Your task to perform on an android device: see creations saved in the google photos Image 0: 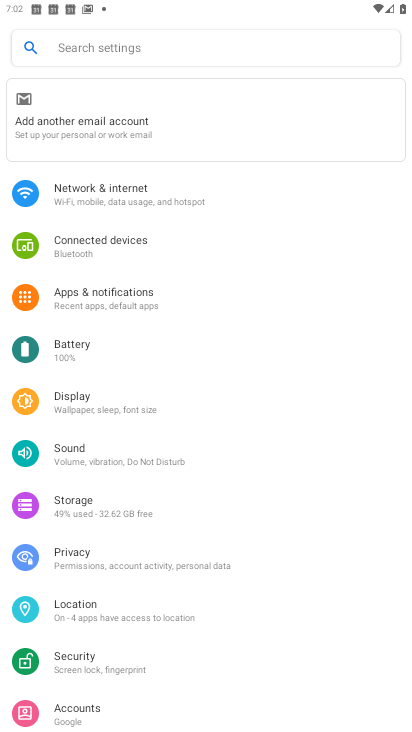
Step 0: press home button
Your task to perform on an android device: see creations saved in the google photos Image 1: 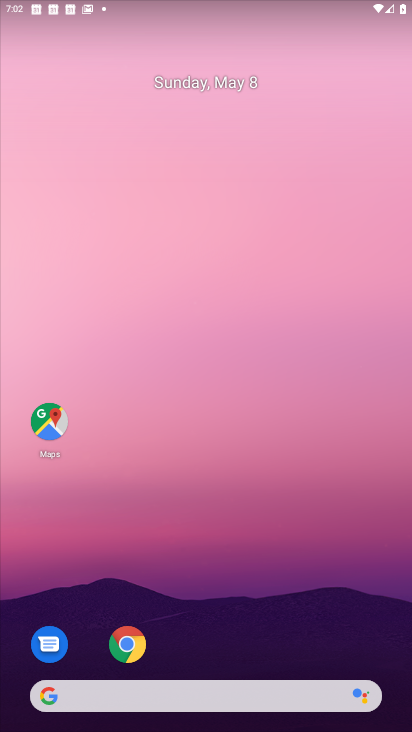
Step 1: drag from (304, 632) to (282, 184)
Your task to perform on an android device: see creations saved in the google photos Image 2: 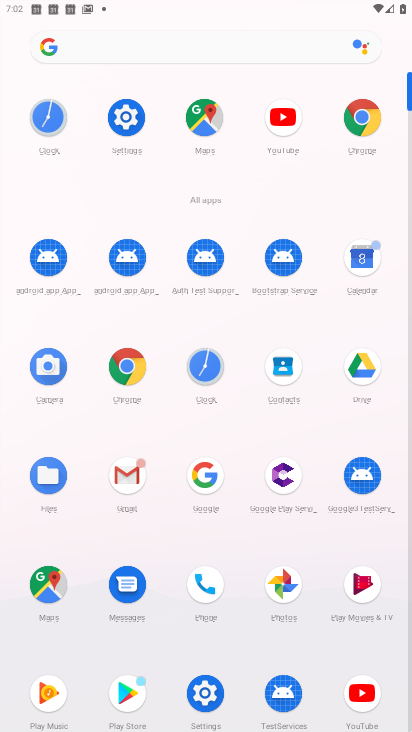
Step 2: click (277, 582)
Your task to perform on an android device: see creations saved in the google photos Image 3: 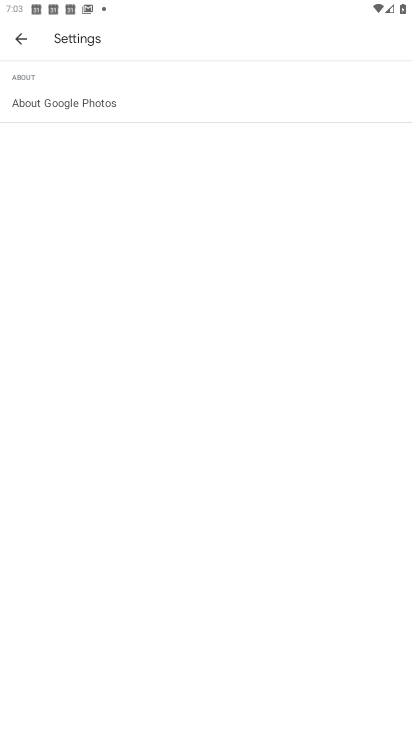
Step 3: press back button
Your task to perform on an android device: see creations saved in the google photos Image 4: 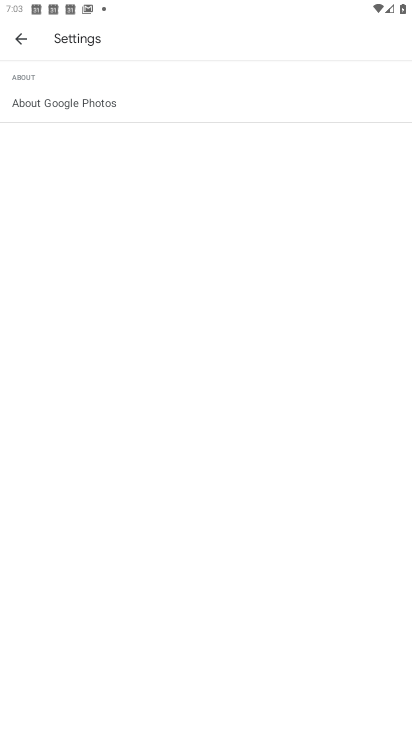
Step 4: press back button
Your task to perform on an android device: see creations saved in the google photos Image 5: 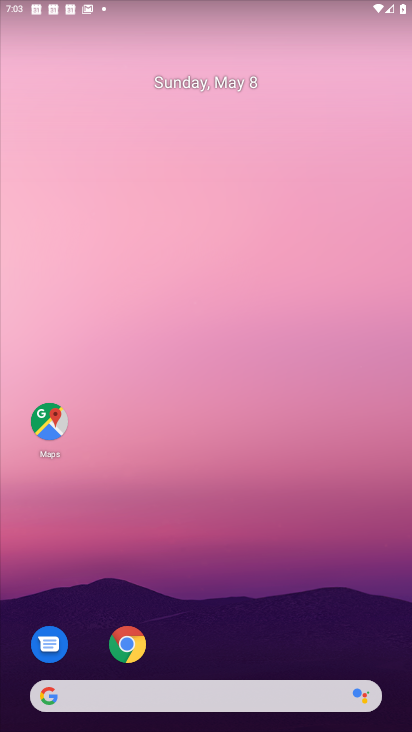
Step 5: drag from (288, 497) to (222, 18)
Your task to perform on an android device: see creations saved in the google photos Image 6: 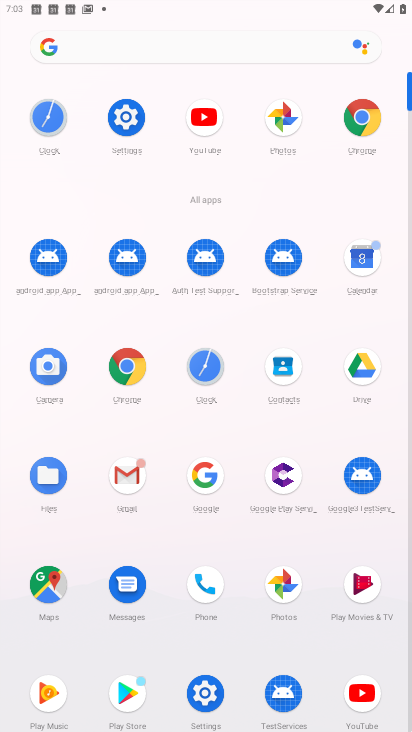
Step 6: click (275, 602)
Your task to perform on an android device: see creations saved in the google photos Image 7: 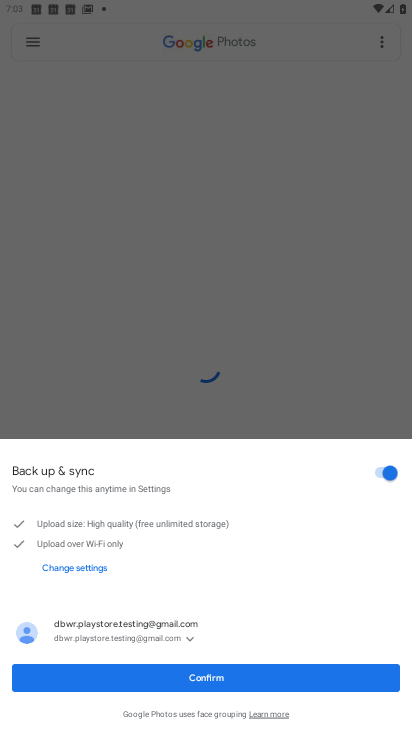
Step 7: click (198, 673)
Your task to perform on an android device: see creations saved in the google photos Image 8: 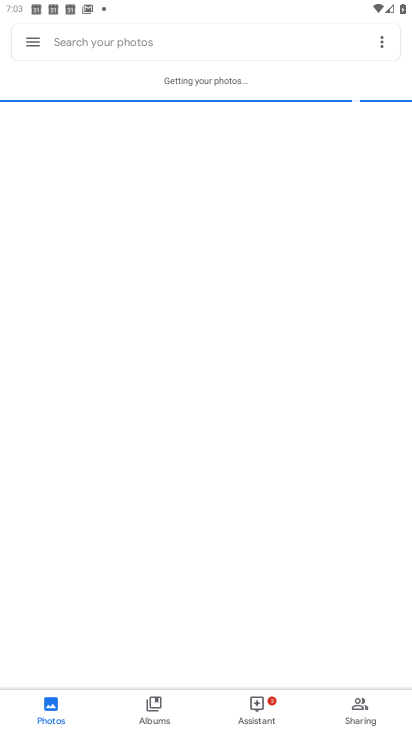
Step 8: click (160, 78)
Your task to perform on an android device: see creations saved in the google photos Image 9: 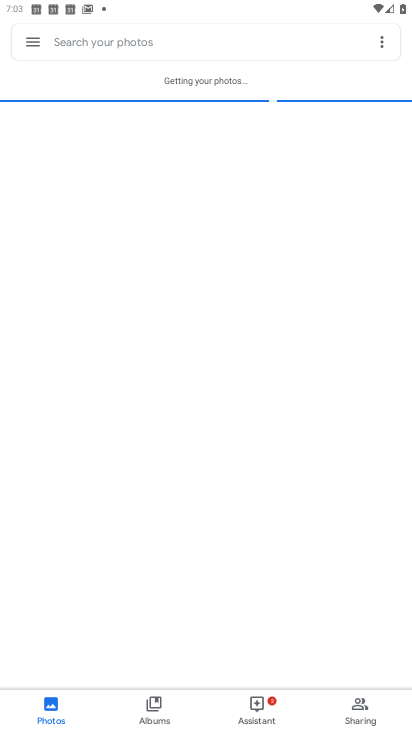
Step 9: click (160, 78)
Your task to perform on an android device: see creations saved in the google photos Image 10: 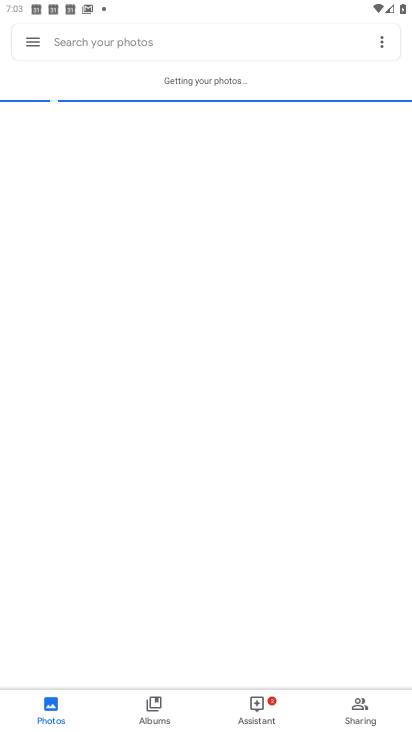
Step 10: click (249, 83)
Your task to perform on an android device: see creations saved in the google photos Image 11: 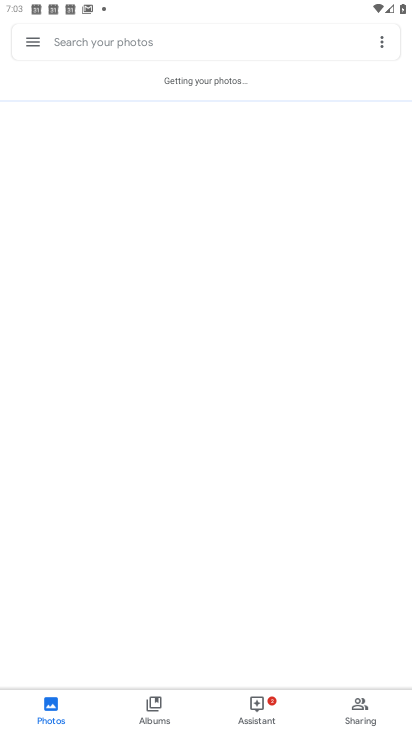
Step 11: click (249, 83)
Your task to perform on an android device: see creations saved in the google photos Image 12: 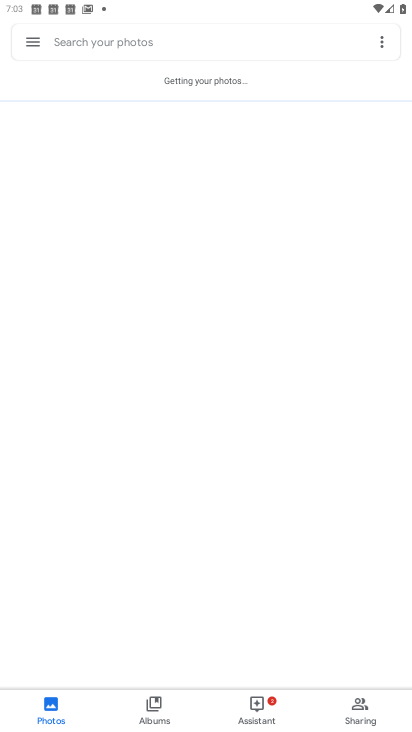
Step 12: task complete